Your task to perform on an android device: toggle translation in the chrome app Image 0: 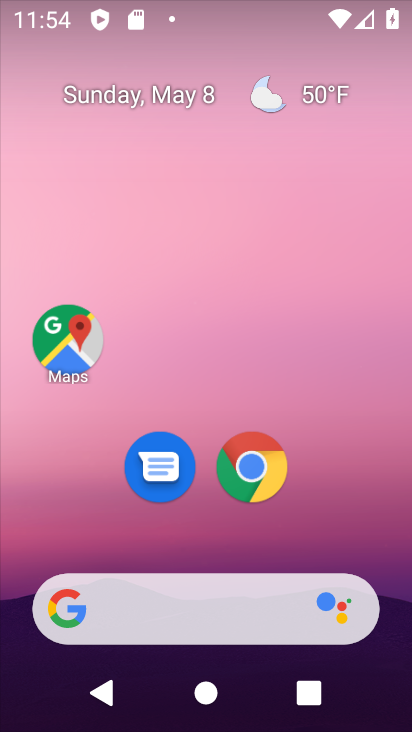
Step 0: press home button
Your task to perform on an android device: toggle translation in the chrome app Image 1: 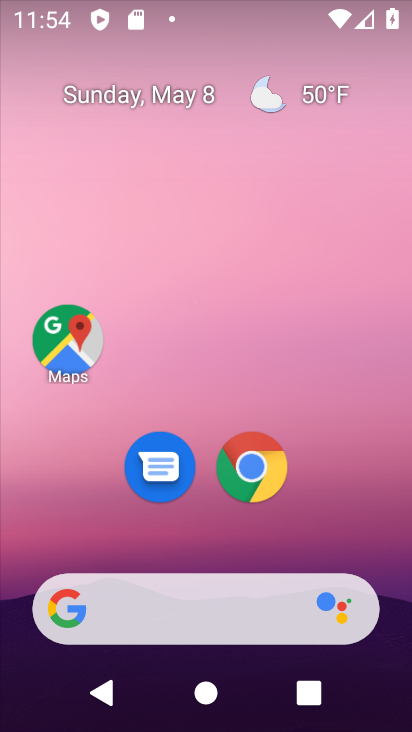
Step 1: click (253, 460)
Your task to perform on an android device: toggle translation in the chrome app Image 2: 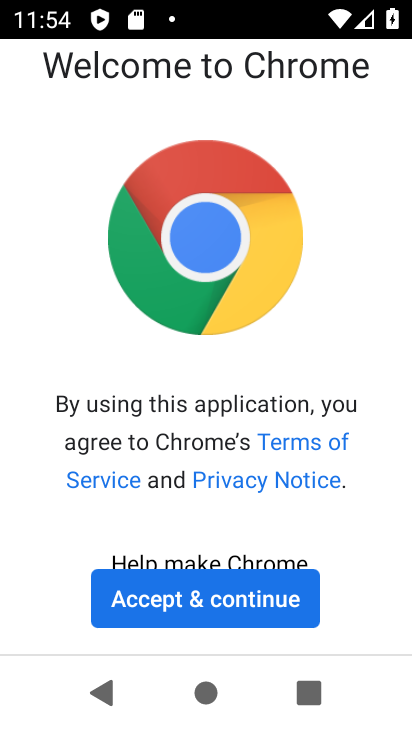
Step 2: click (210, 603)
Your task to perform on an android device: toggle translation in the chrome app Image 3: 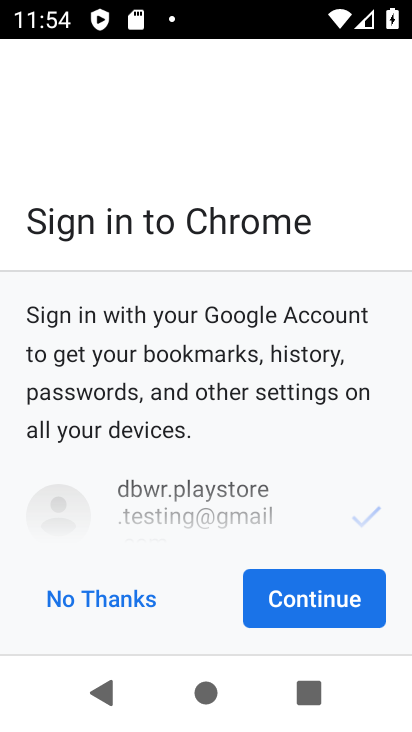
Step 3: click (314, 604)
Your task to perform on an android device: toggle translation in the chrome app Image 4: 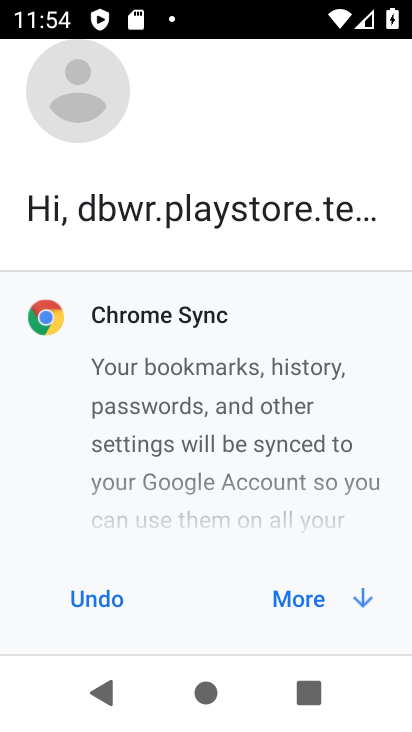
Step 4: click (314, 604)
Your task to perform on an android device: toggle translation in the chrome app Image 5: 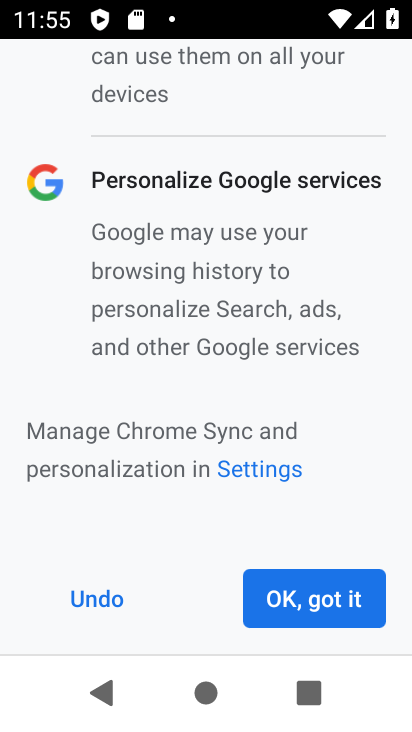
Step 5: click (319, 618)
Your task to perform on an android device: toggle translation in the chrome app Image 6: 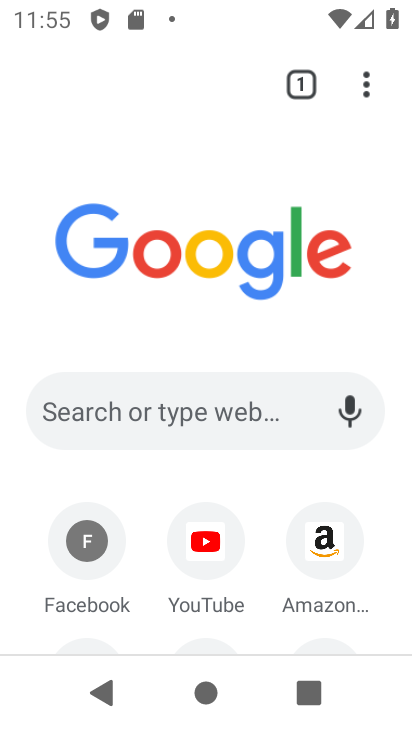
Step 6: click (358, 91)
Your task to perform on an android device: toggle translation in the chrome app Image 7: 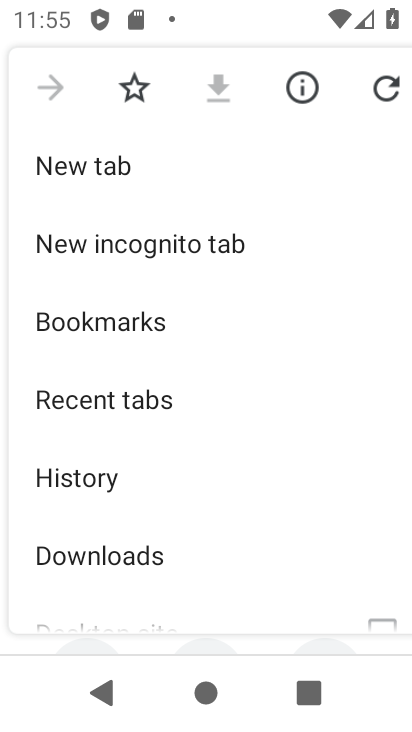
Step 7: drag from (195, 569) to (281, 52)
Your task to perform on an android device: toggle translation in the chrome app Image 8: 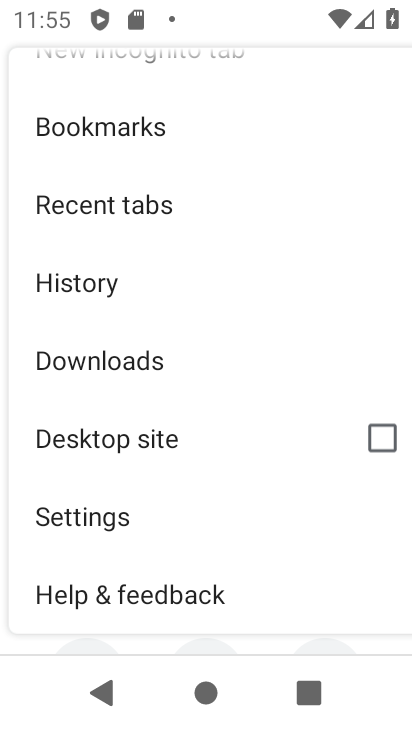
Step 8: click (142, 520)
Your task to perform on an android device: toggle translation in the chrome app Image 9: 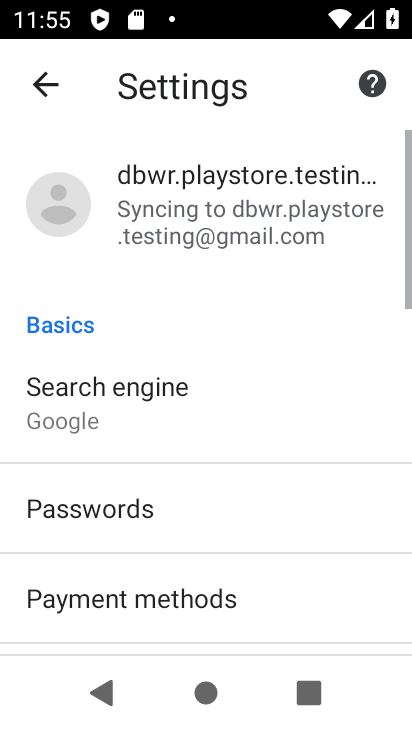
Step 9: drag from (197, 576) to (230, 23)
Your task to perform on an android device: toggle translation in the chrome app Image 10: 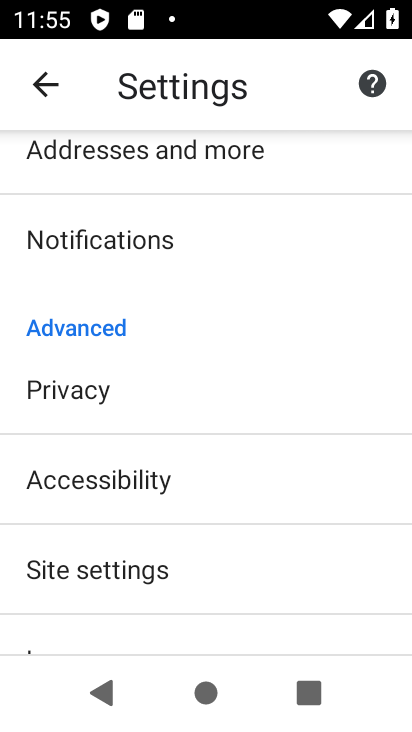
Step 10: drag from (149, 598) to (170, 175)
Your task to perform on an android device: toggle translation in the chrome app Image 11: 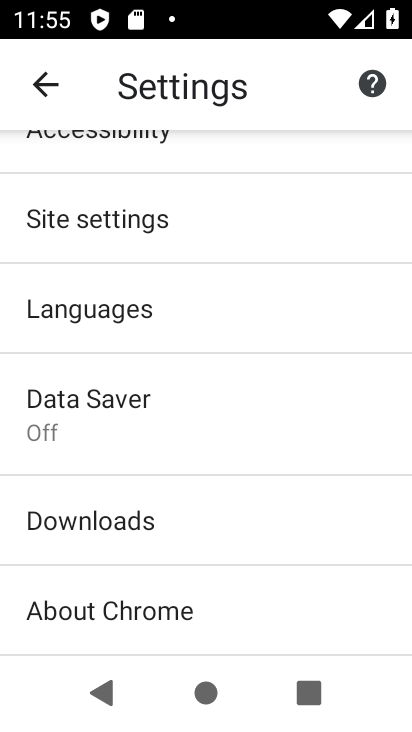
Step 11: click (154, 305)
Your task to perform on an android device: toggle translation in the chrome app Image 12: 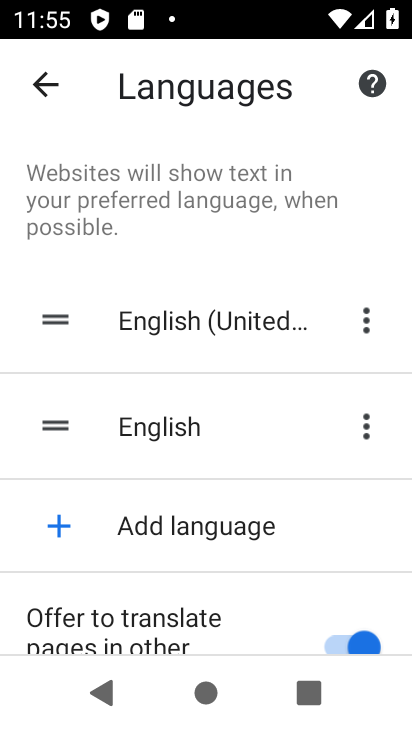
Step 12: click (330, 628)
Your task to perform on an android device: toggle translation in the chrome app Image 13: 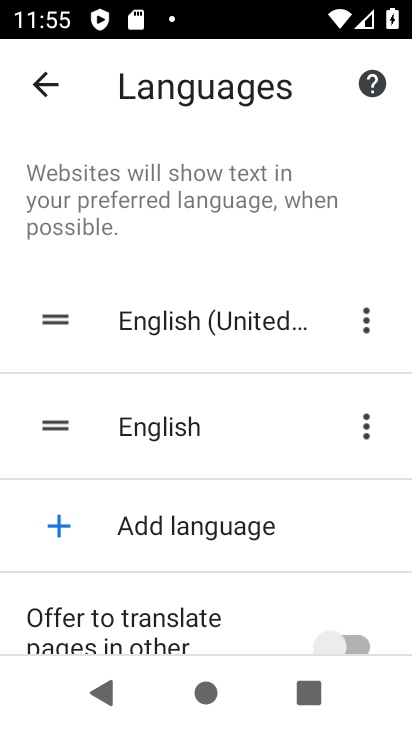
Step 13: task complete